Your task to perform on an android device: Go to Android settings Image 0: 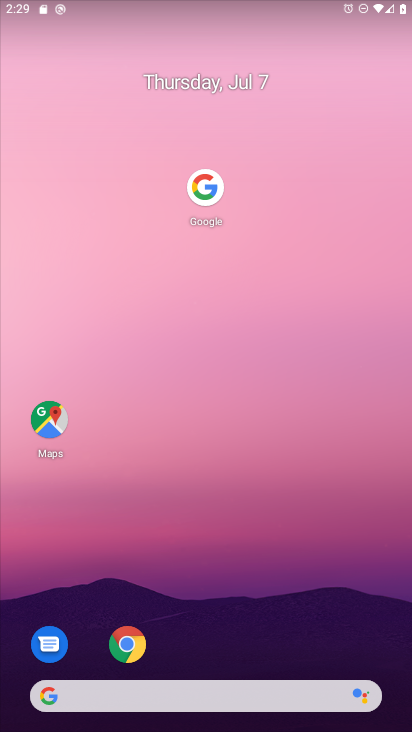
Step 0: drag from (152, 694) to (207, 89)
Your task to perform on an android device: Go to Android settings Image 1: 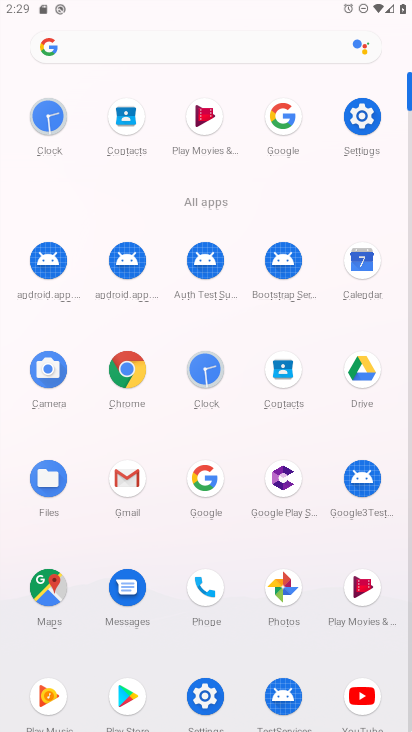
Step 1: click (365, 116)
Your task to perform on an android device: Go to Android settings Image 2: 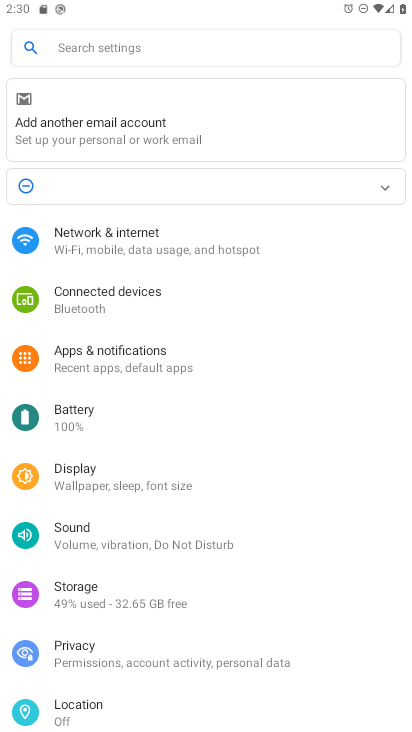
Step 2: task complete